Your task to perform on an android device: Set the phone to "Do not disturb". Image 0: 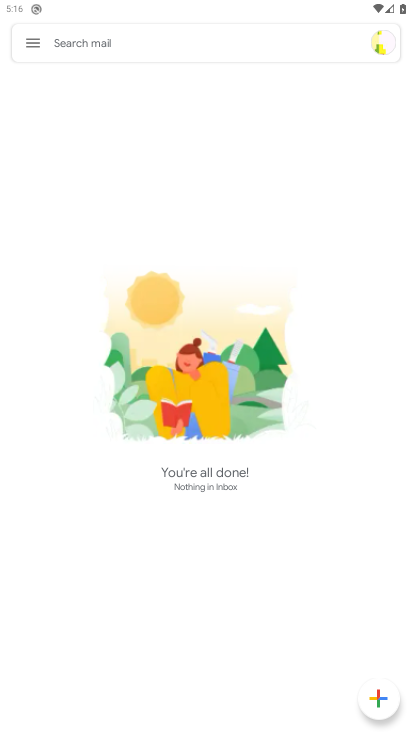
Step 0: press home button
Your task to perform on an android device: Set the phone to "Do not disturb". Image 1: 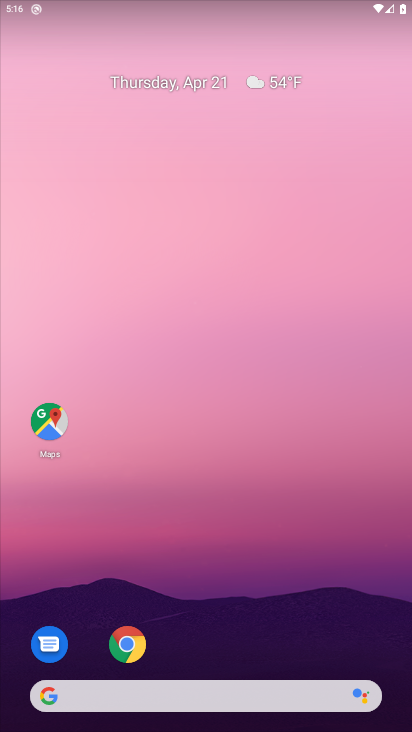
Step 1: drag from (199, 672) to (250, 332)
Your task to perform on an android device: Set the phone to "Do not disturb". Image 2: 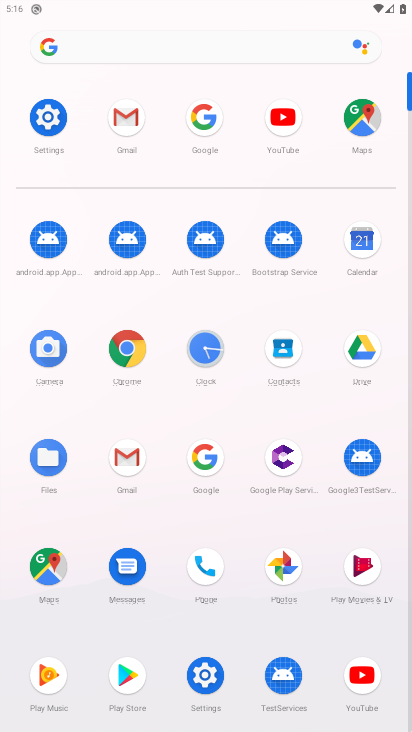
Step 2: click (49, 122)
Your task to perform on an android device: Set the phone to "Do not disturb". Image 3: 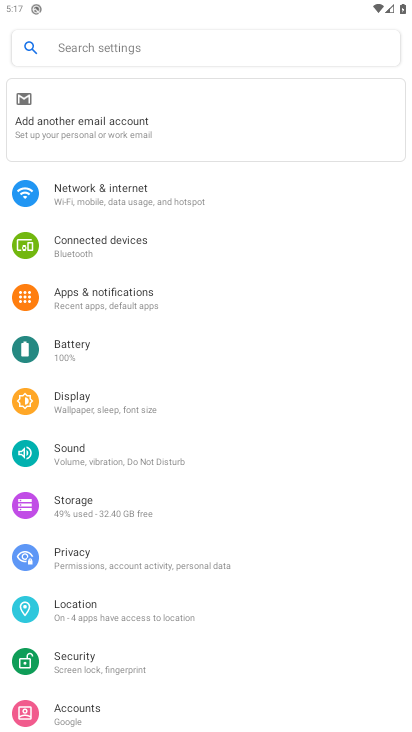
Step 3: click (114, 461)
Your task to perform on an android device: Set the phone to "Do not disturb". Image 4: 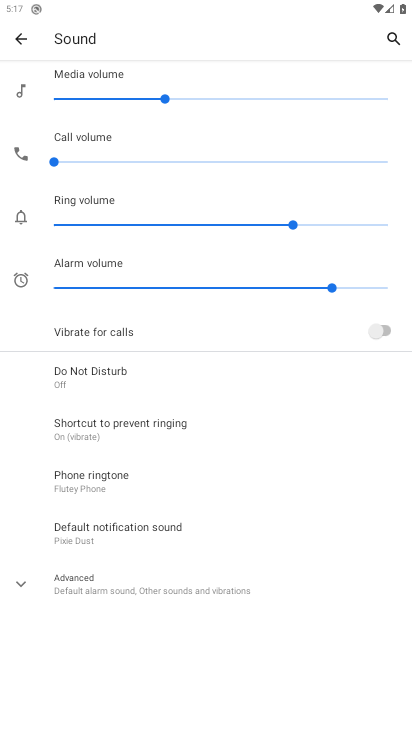
Step 4: click (93, 366)
Your task to perform on an android device: Set the phone to "Do not disturb". Image 5: 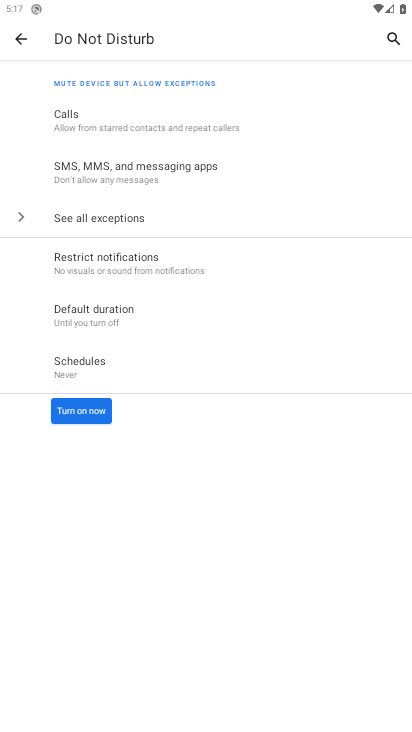
Step 5: click (87, 417)
Your task to perform on an android device: Set the phone to "Do not disturb". Image 6: 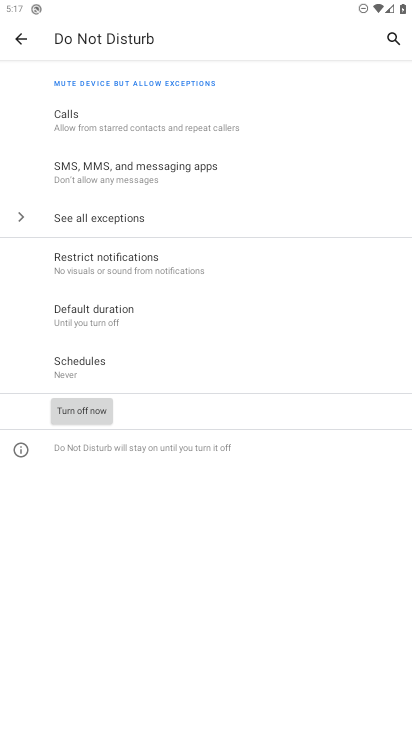
Step 6: task complete